Your task to perform on an android device: change text size in settings app Image 0: 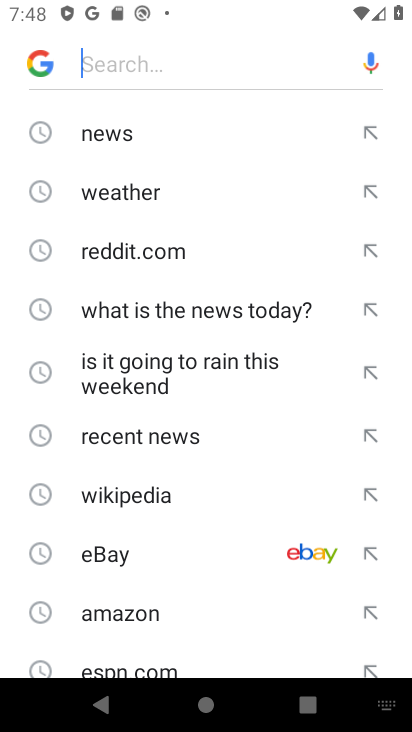
Step 0: press home button
Your task to perform on an android device: change text size in settings app Image 1: 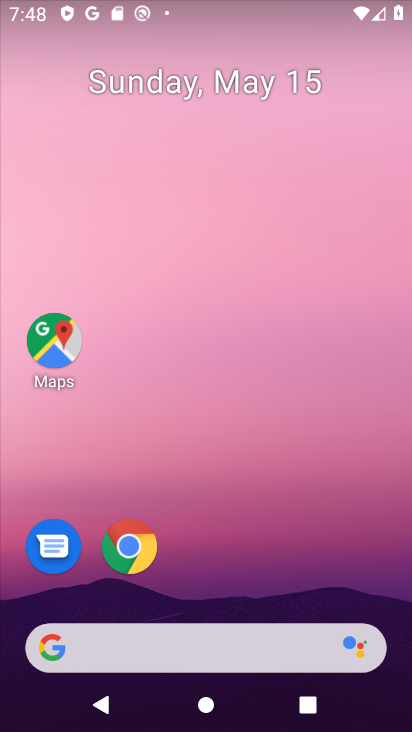
Step 1: drag from (246, 504) to (272, 45)
Your task to perform on an android device: change text size in settings app Image 2: 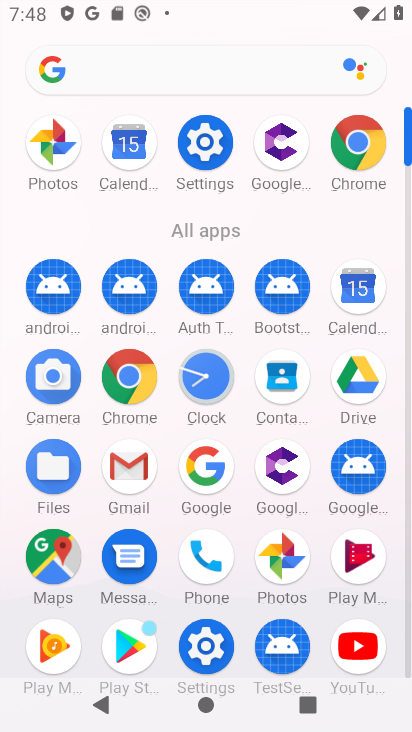
Step 2: click (213, 140)
Your task to perform on an android device: change text size in settings app Image 3: 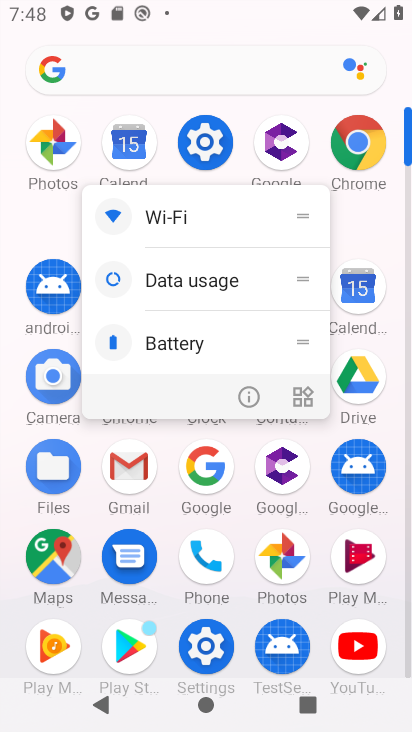
Step 3: click (198, 132)
Your task to perform on an android device: change text size in settings app Image 4: 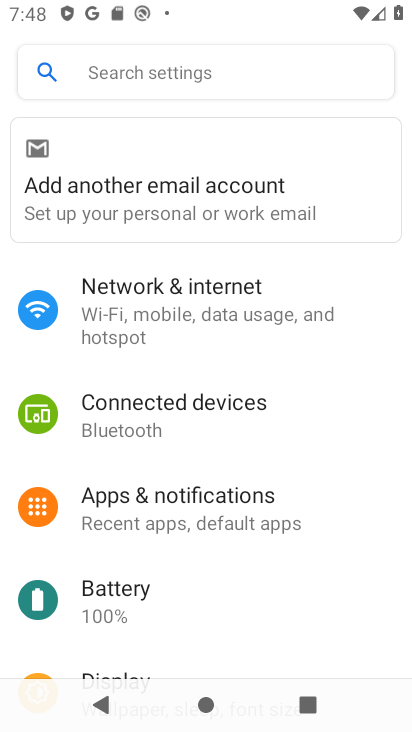
Step 4: drag from (211, 596) to (248, 222)
Your task to perform on an android device: change text size in settings app Image 5: 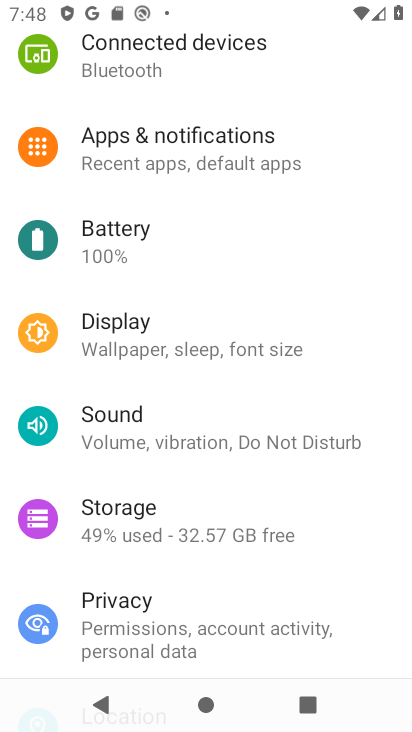
Step 5: click (226, 338)
Your task to perform on an android device: change text size in settings app Image 6: 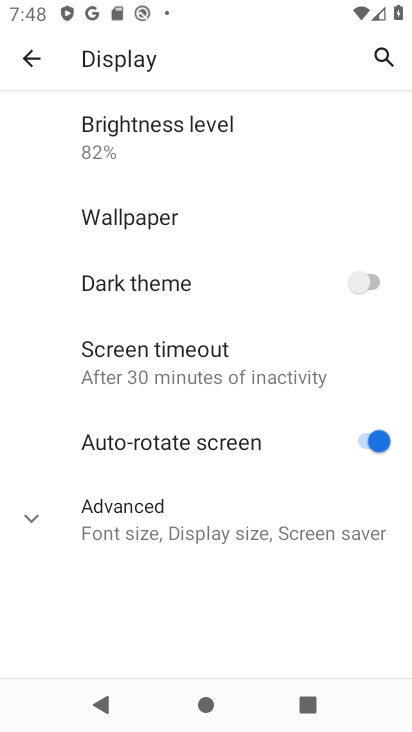
Step 6: click (37, 514)
Your task to perform on an android device: change text size in settings app Image 7: 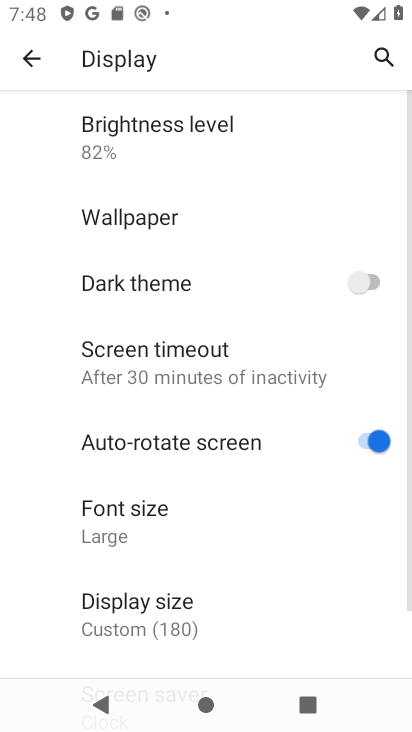
Step 7: click (195, 519)
Your task to perform on an android device: change text size in settings app Image 8: 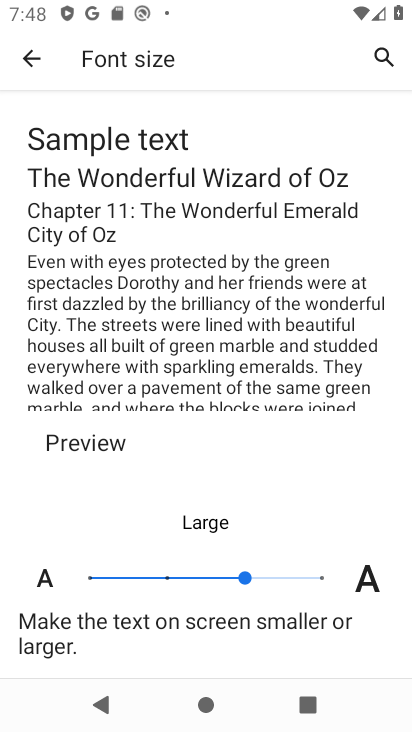
Step 8: click (172, 575)
Your task to perform on an android device: change text size in settings app Image 9: 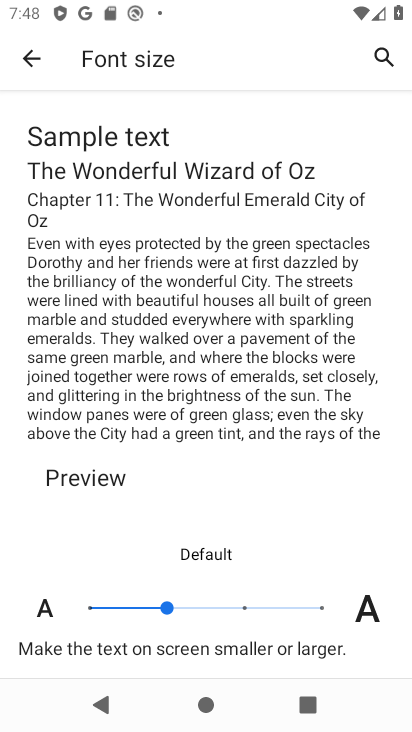
Step 9: task complete